Your task to perform on an android device: Search for vegetarian restaurants on Maps Image 0: 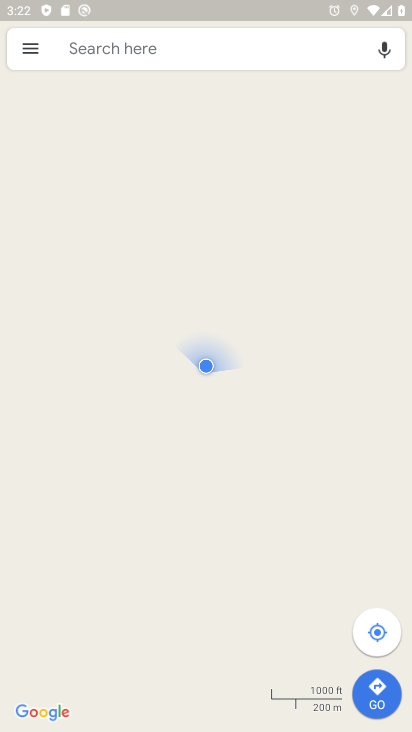
Step 0: press home button
Your task to perform on an android device: Search for vegetarian restaurants on Maps Image 1: 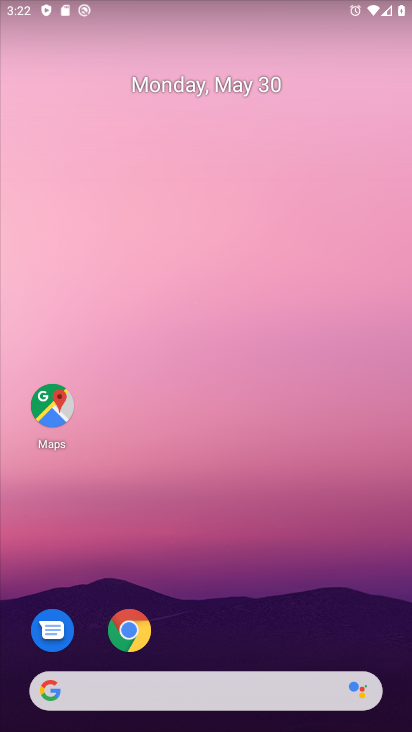
Step 1: click (24, 392)
Your task to perform on an android device: Search for vegetarian restaurants on Maps Image 2: 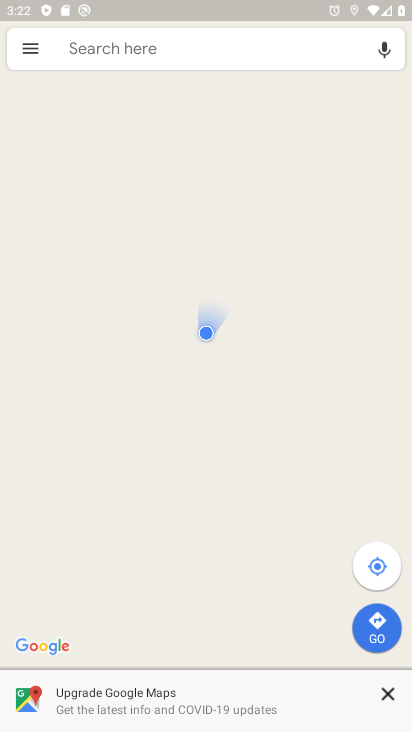
Step 2: click (203, 44)
Your task to perform on an android device: Search for vegetarian restaurants on Maps Image 3: 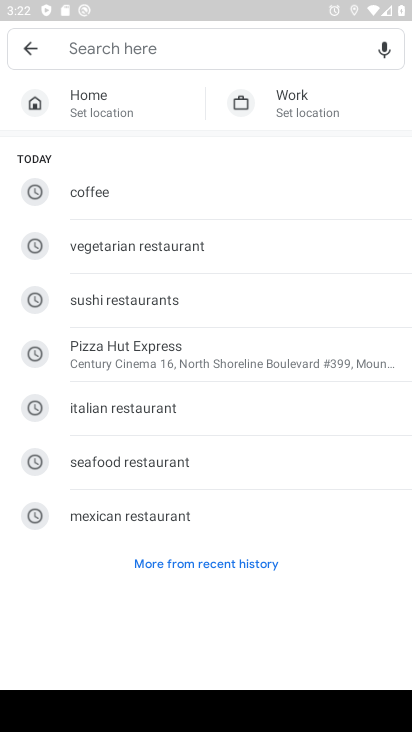
Step 3: type " vegetarian restaurants"
Your task to perform on an android device: Search for vegetarian restaurants on Maps Image 4: 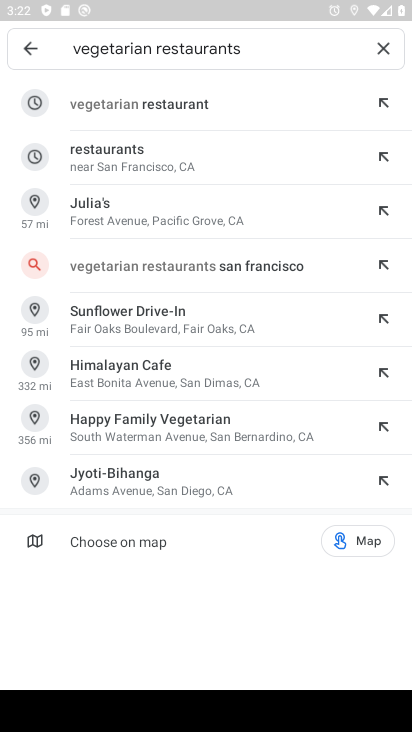
Step 4: click (70, 110)
Your task to perform on an android device: Search for vegetarian restaurants on Maps Image 5: 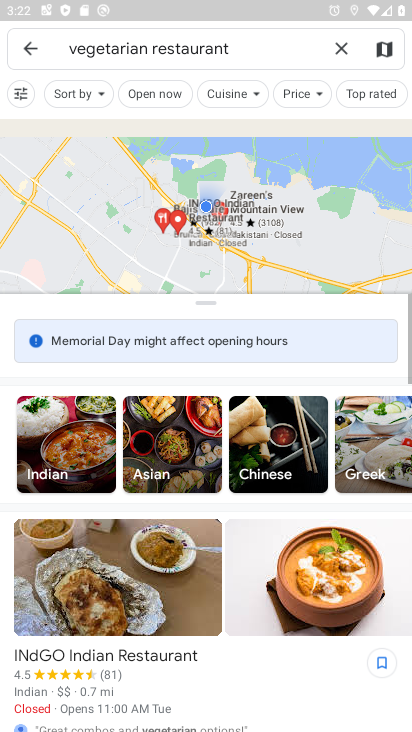
Step 5: task complete